Your task to perform on an android device: open app "Google Calendar" Image 0: 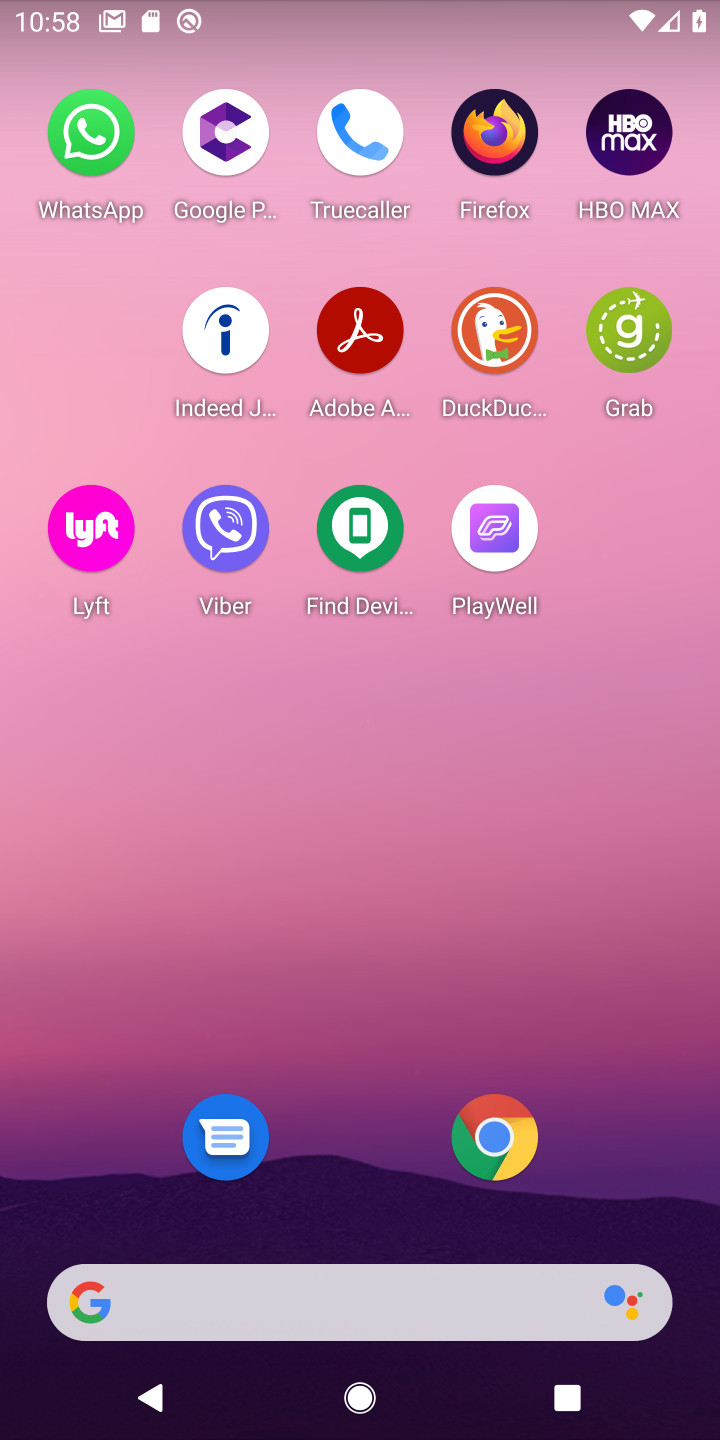
Step 0: drag from (300, 837) to (376, 18)
Your task to perform on an android device: open app "Google Calendar" Image 1: 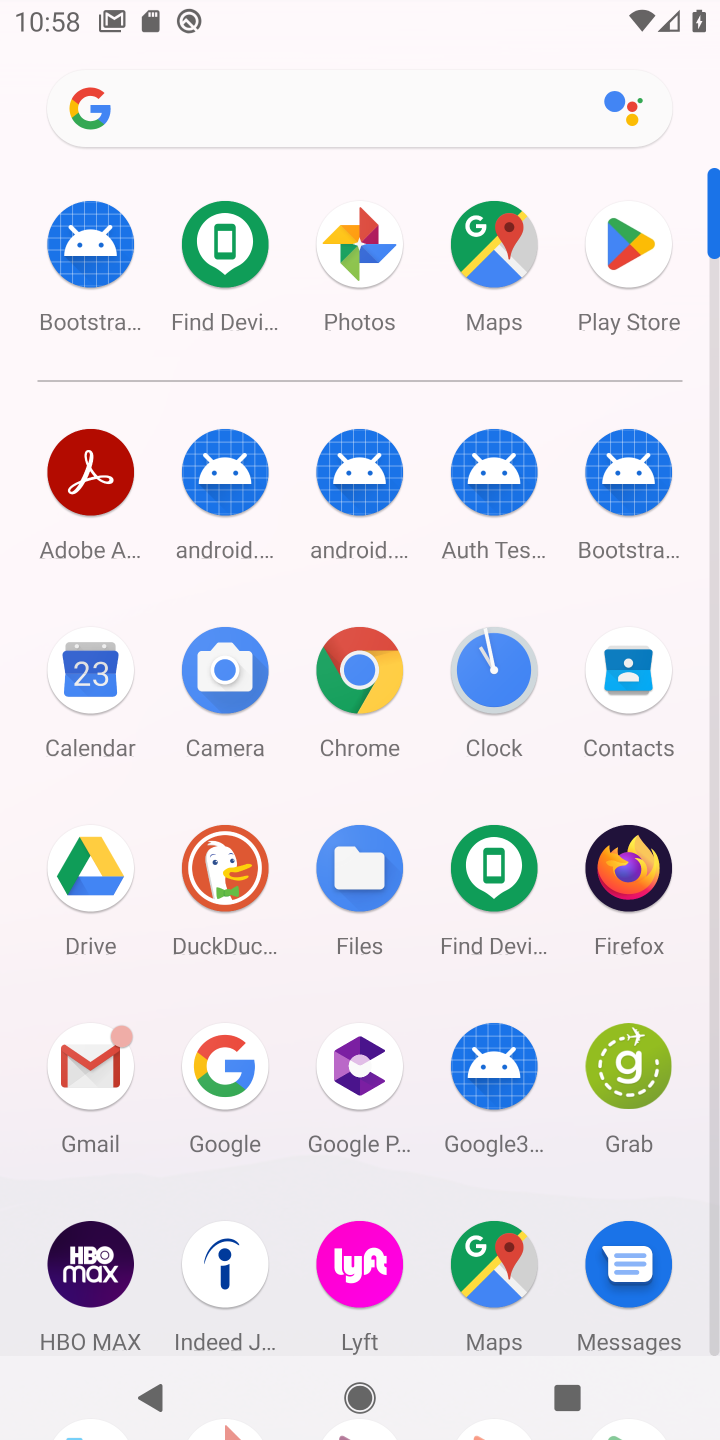
Step 1: click (89, 694)
Your task to perform on an android device: open app "Google Calendar" Image 2: 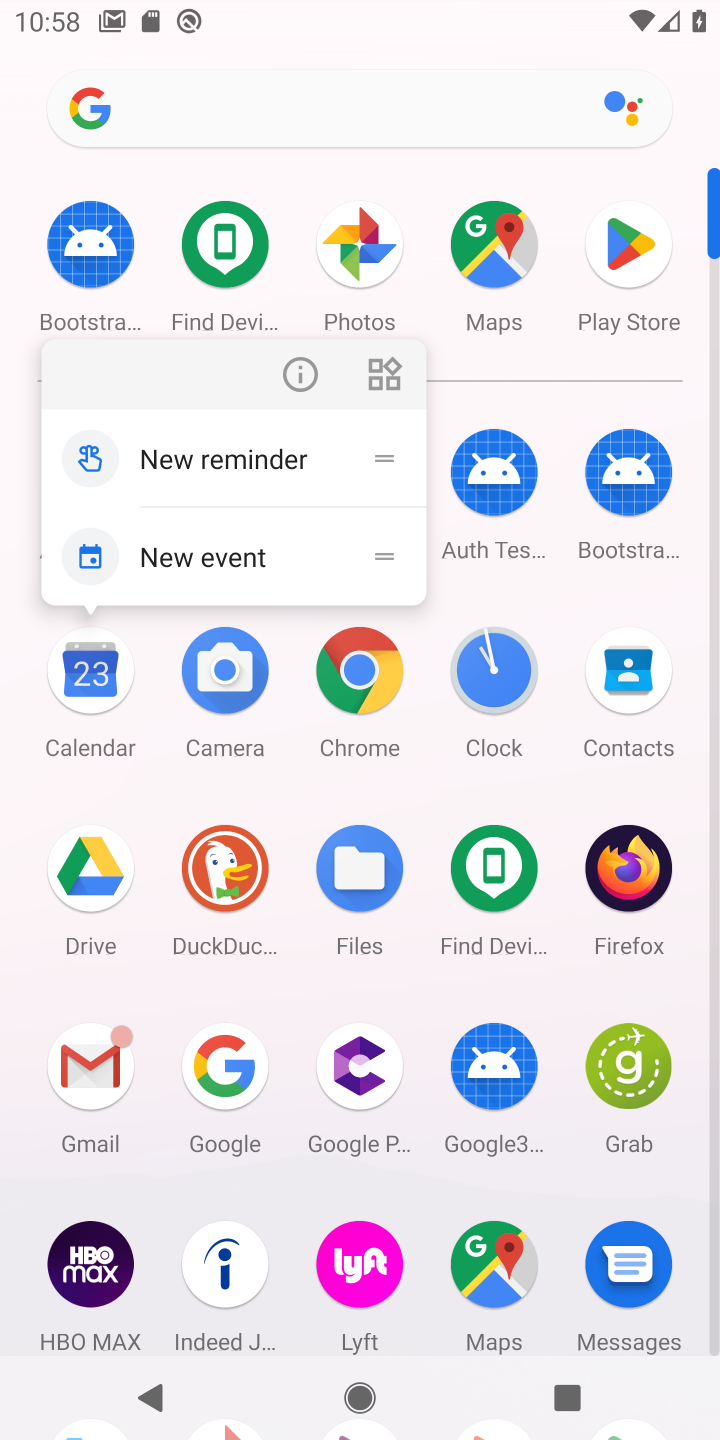
Step 2: click (91, 696)
Your task to perform on an android device: open app "Google Calendar" Image 3: 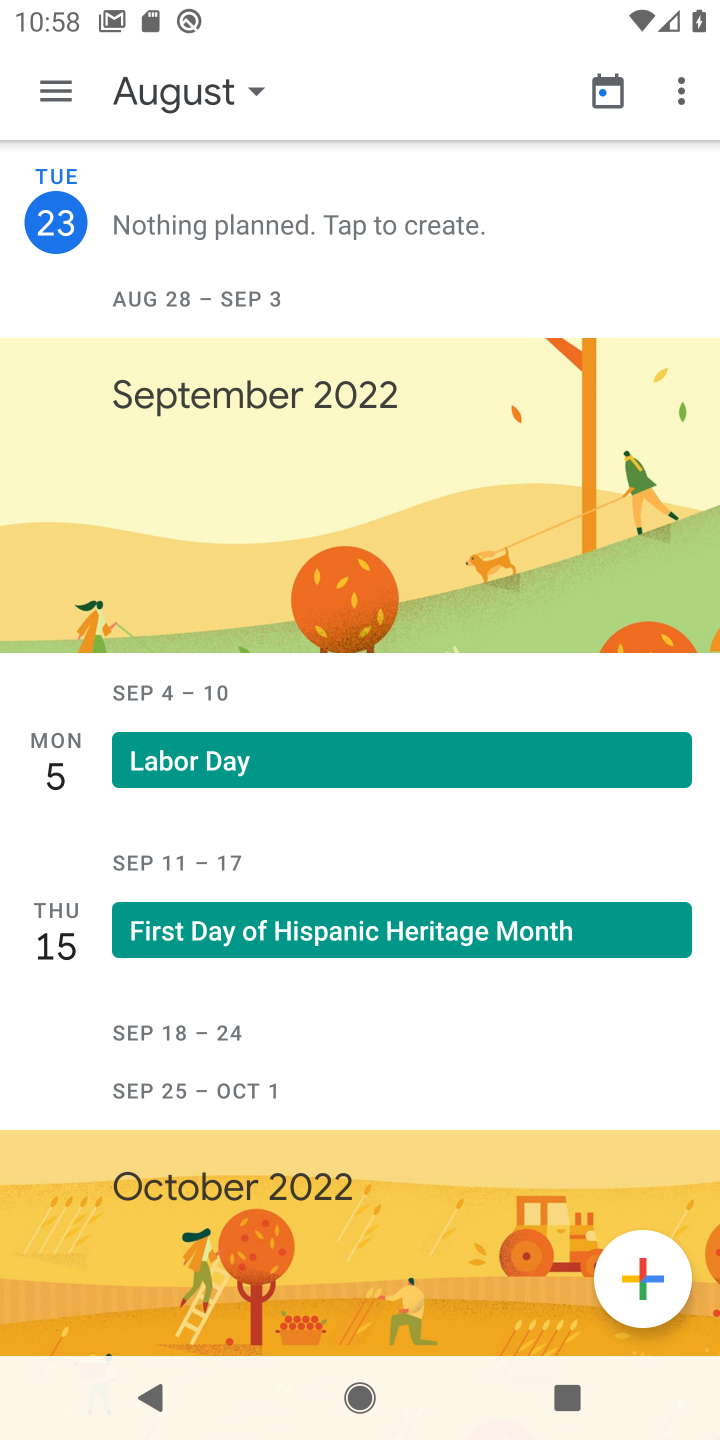
Step 3: task complete